Your task to perform on an android device: Search for vegetarian restaurants on Maps Image 0: 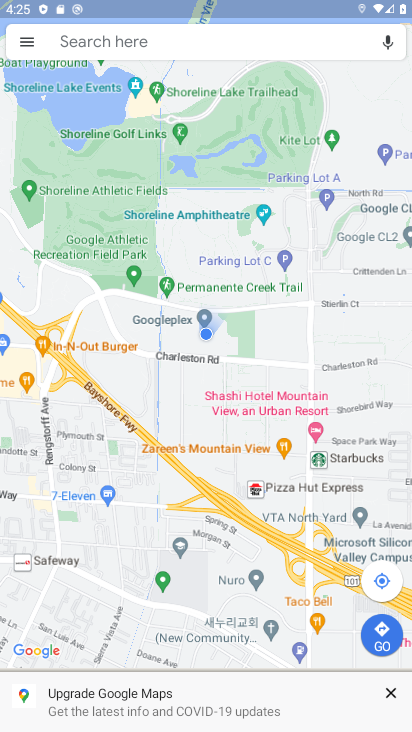
Step 0: press home button
Your task to perform on an android device: Search for vegetarian restaurants on Maps Image 1: 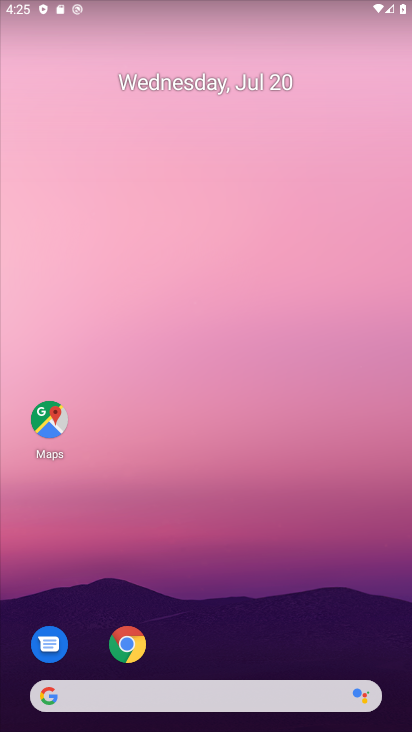
Step 1: drag from (217, 667) to (269, 266)
Your task to perform on an android device: Search for vegetarian restaurants on Maps Image 2: 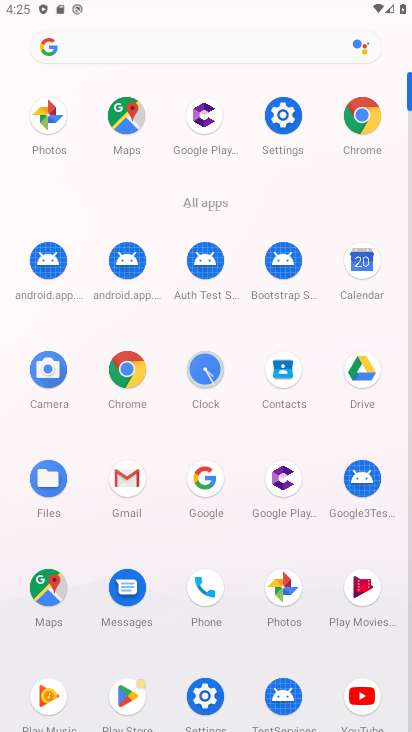
Step 2: click (60, 584)
Your task to perform on an android device: Search for vegetarian restaurants on Maps Image 3: 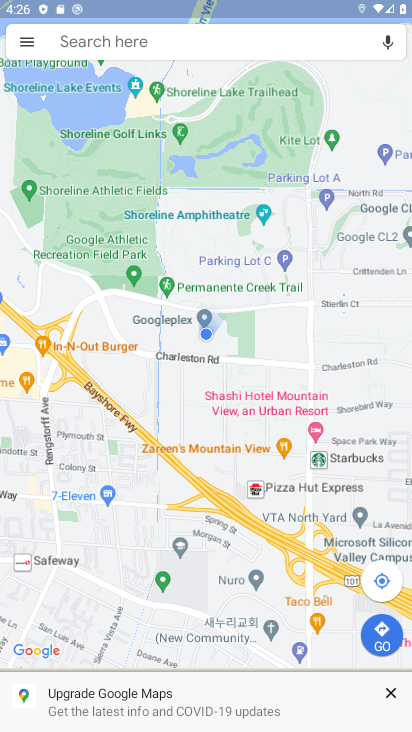
Step 3: click (190, 38)
Your task to perform on an android device: Search for vegetarian restaurants on Maps Image 4: 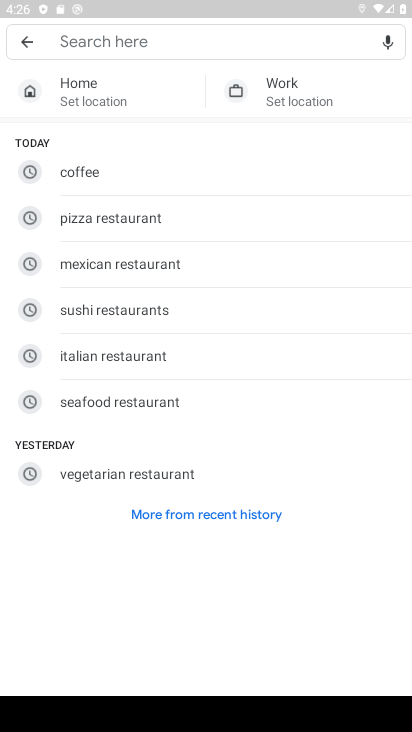
Step 4: type "vegetarian restaurants"
Your task to perform on an android device: Search for vegetarian restaurants on Maps Image 5: 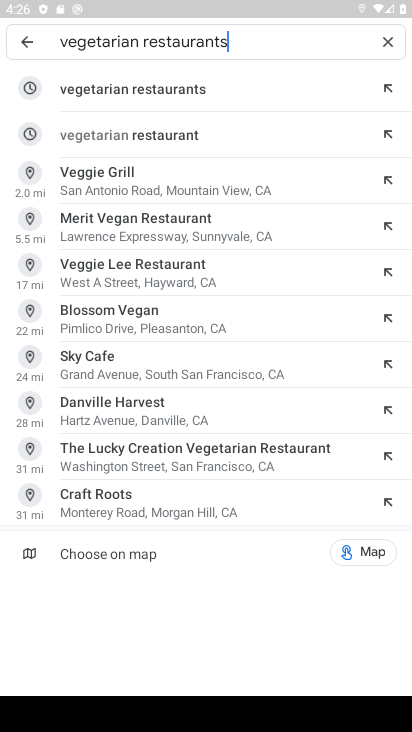
Step 5: click (184, 89)
Your task to perform on an android device: Search for vegetarian restaurants on Maps Image 6: 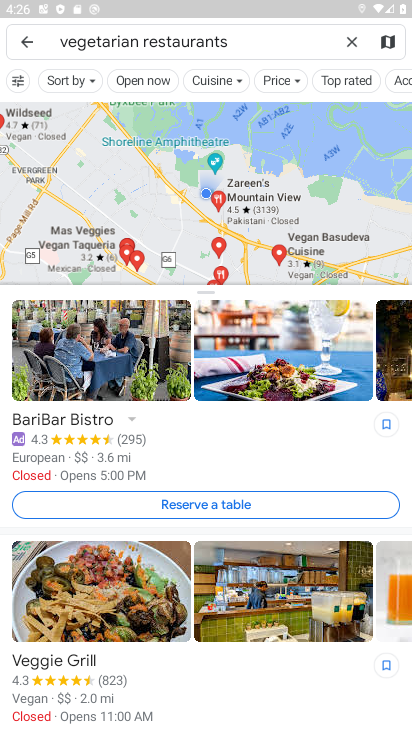
Step 6: task complete